Your task to perform on an android device: install app "Yahoo Mail" Image 0: 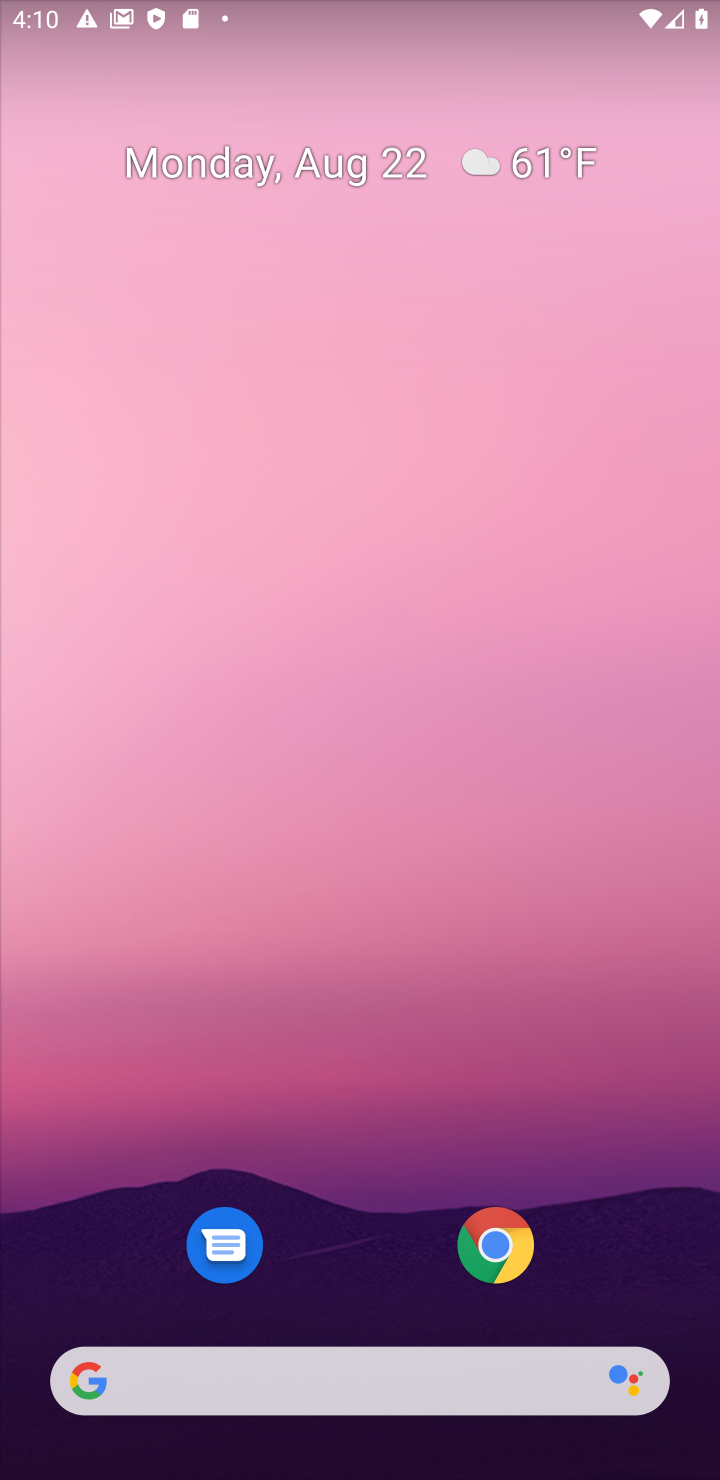
Step 0: press home button
Your task to perform on an android device: install app "Yahoo Mail" Image 1: 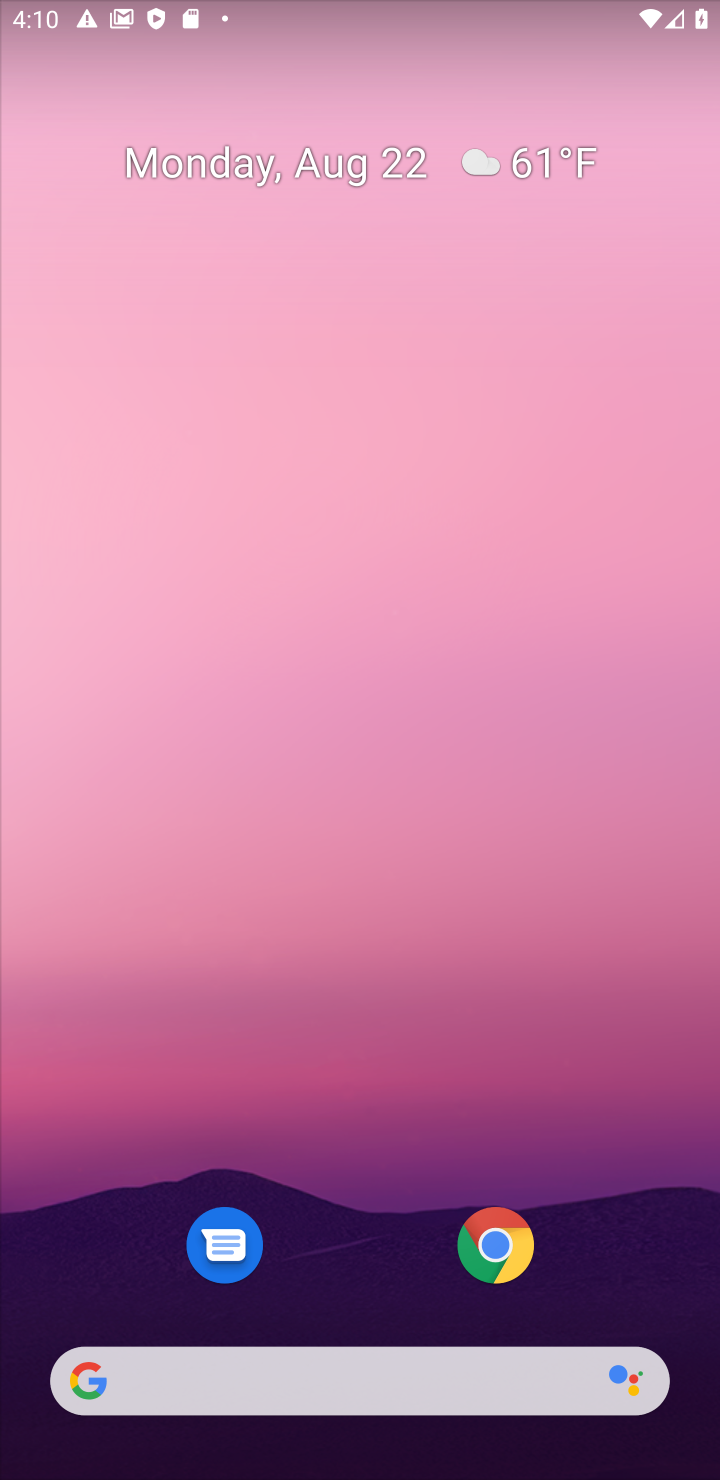
Step 1: drag from (612, 995) to (609, 151)
Your task to perform on an android device: install app "Yahoo Mail" Image 2: 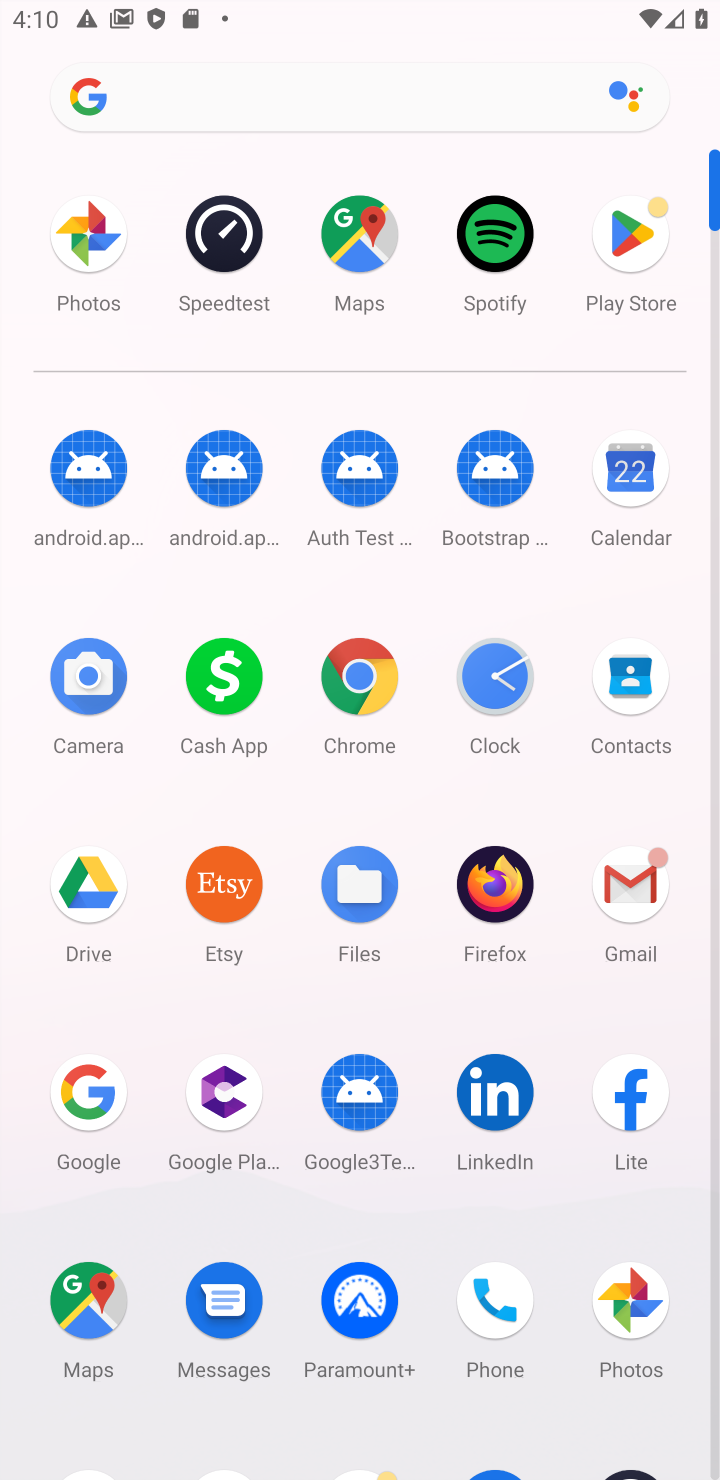
Step 2: click (633, 234)
Your task to perform on an android device: install app "Yahoo Mail" Image 3: 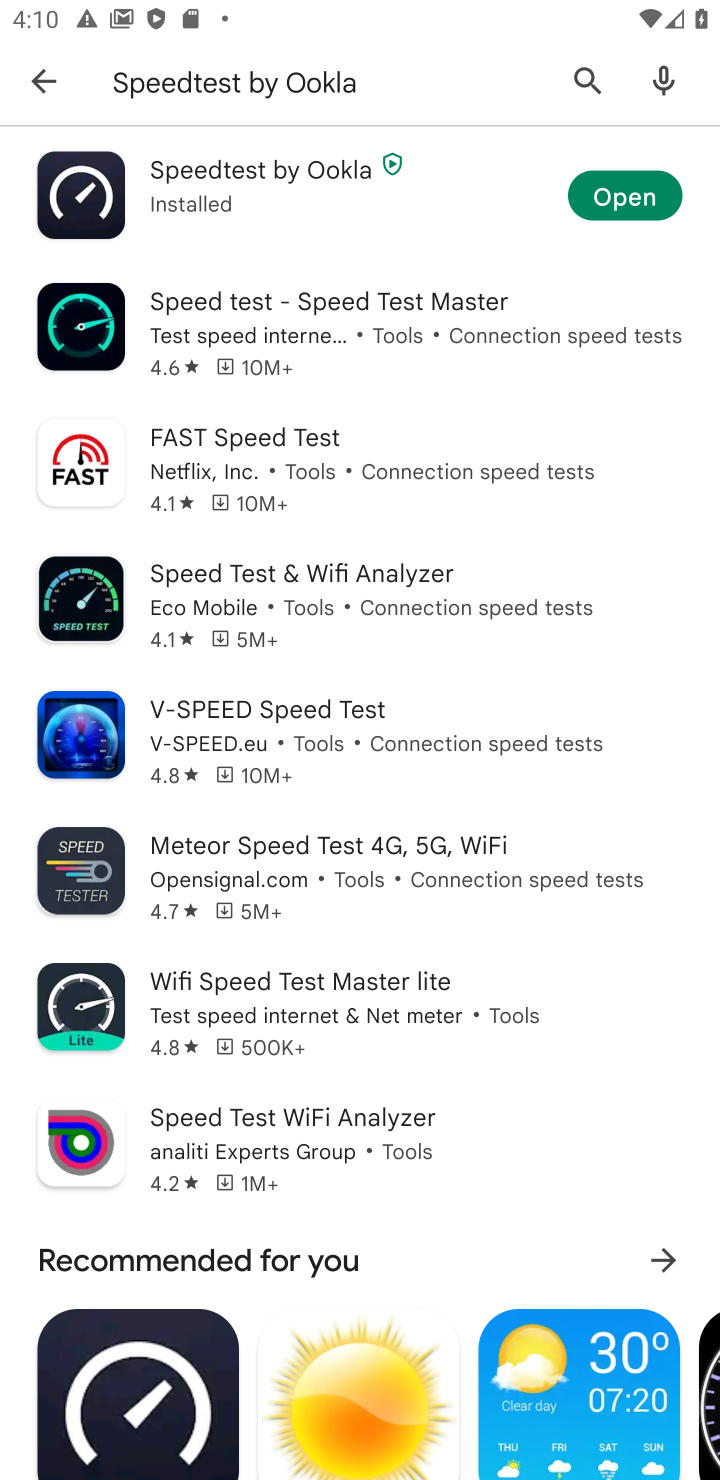
Step 3: press back button
Your task to perform on an android device: install app "Yahoo Mail" Image 4: 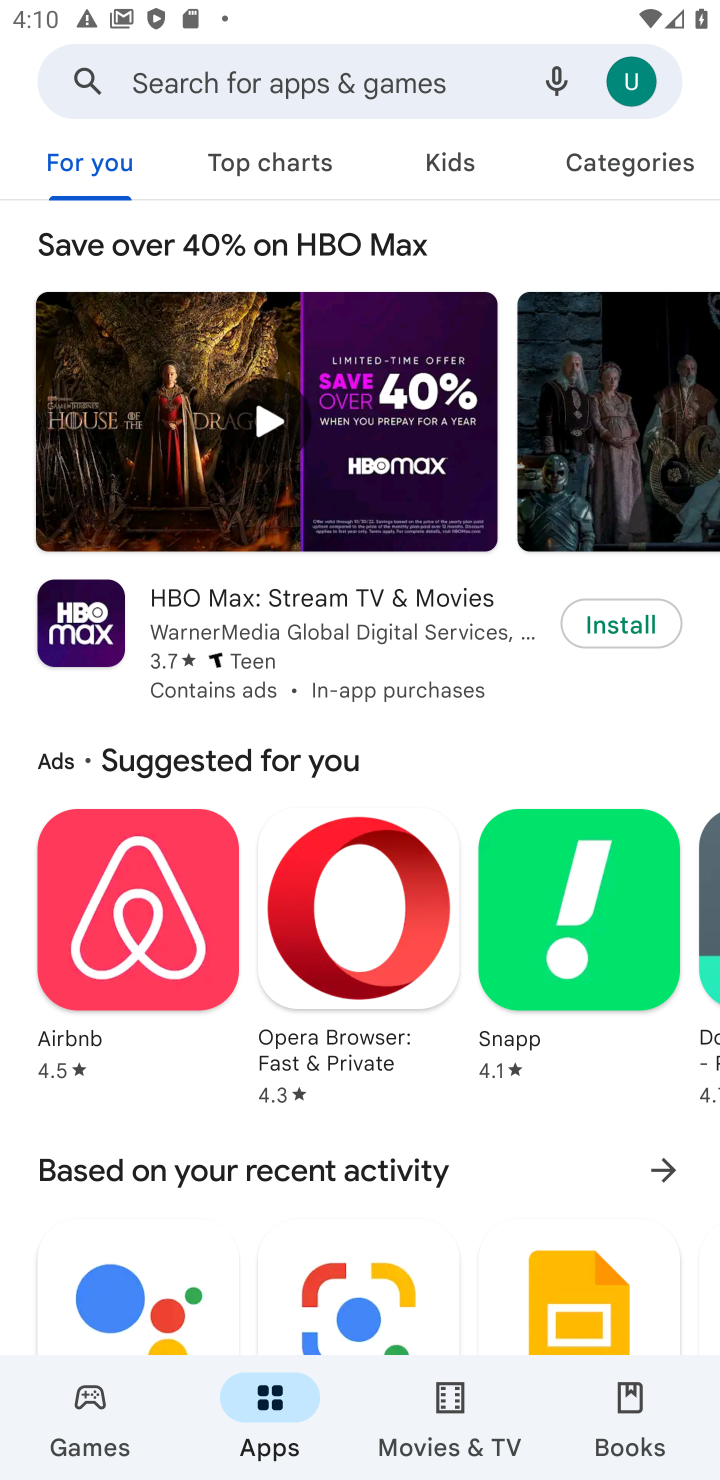
Step 4: click (395, 68)
Your task to perform on an android device: install app "Yahoo Mail" Image 5: 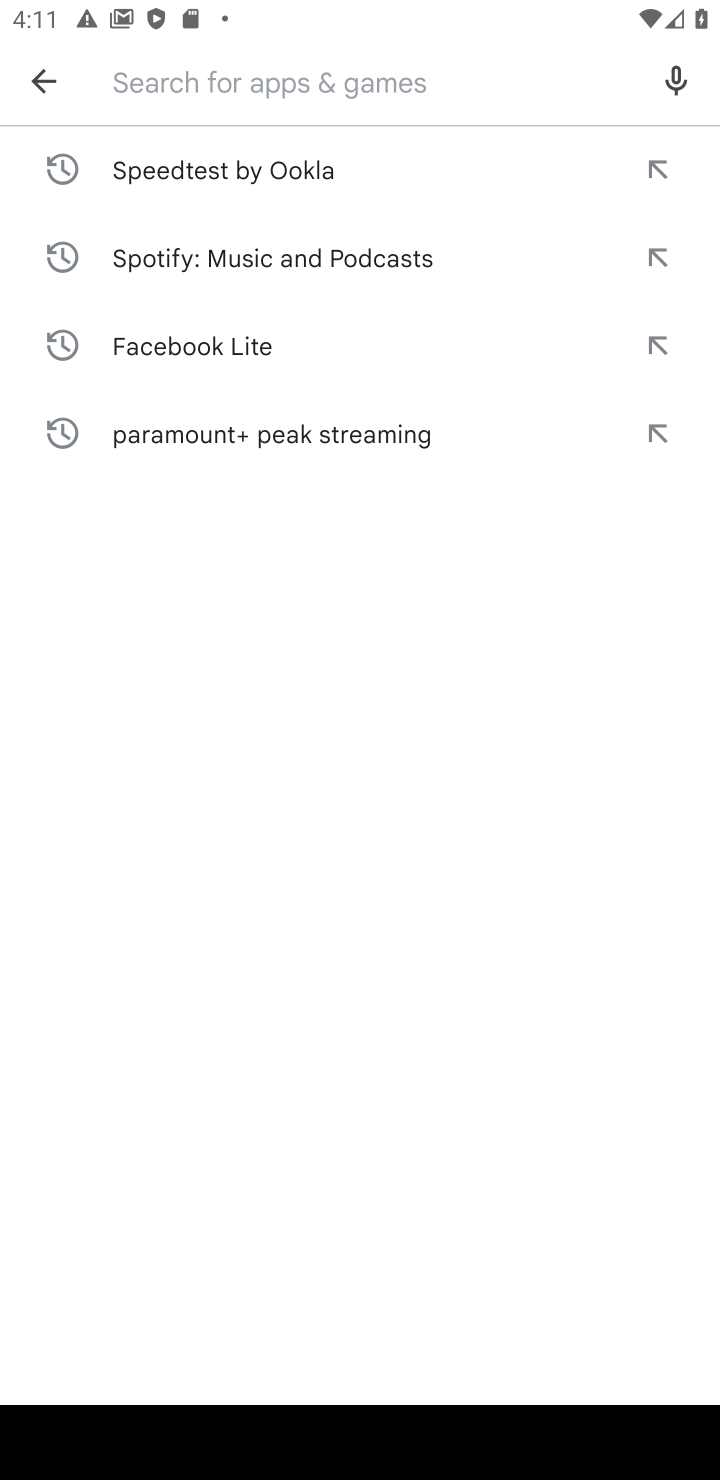
Step 5: press enter
Your task to perform on an android device: install app "Yahoo Mail" Image 6: 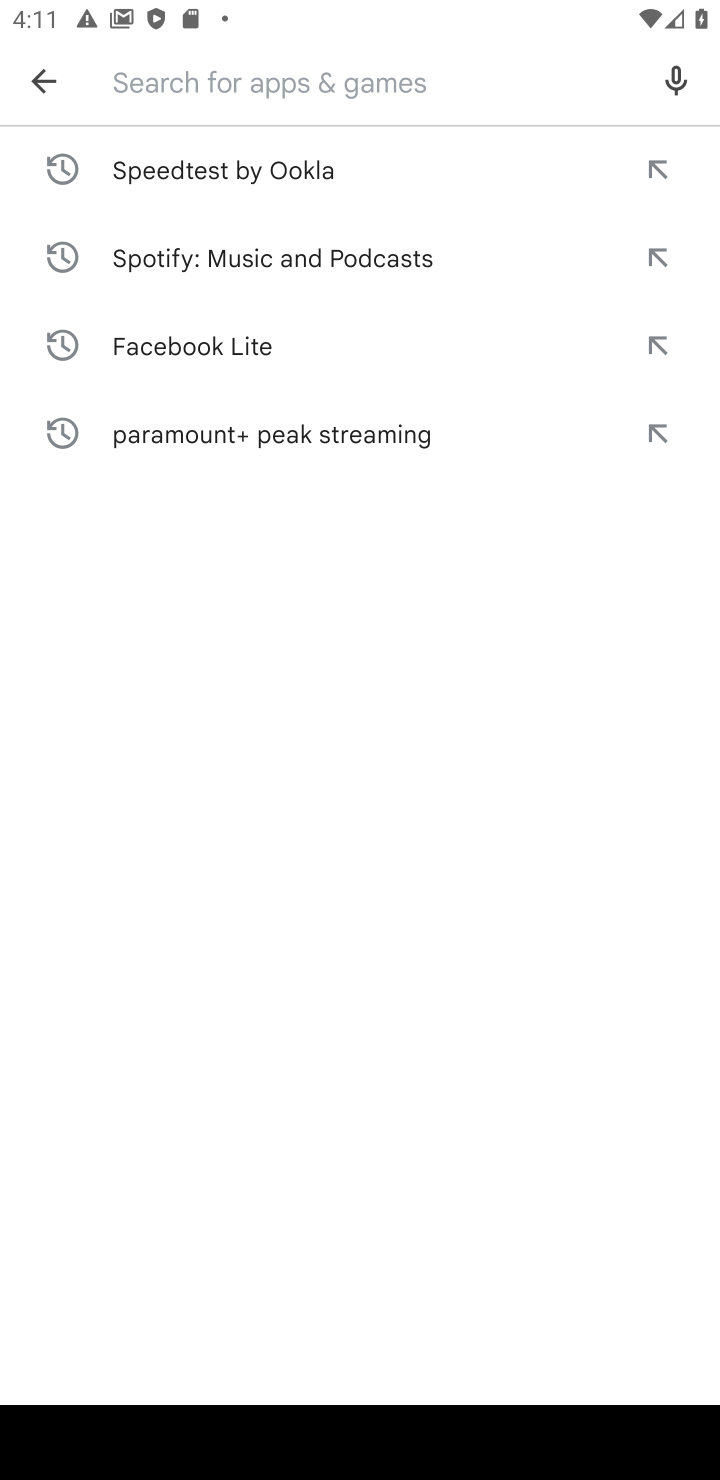
Step 6: type "yahoo mail"
Your task to perform on an android device: install app "Yahoo Mail" Image 7: 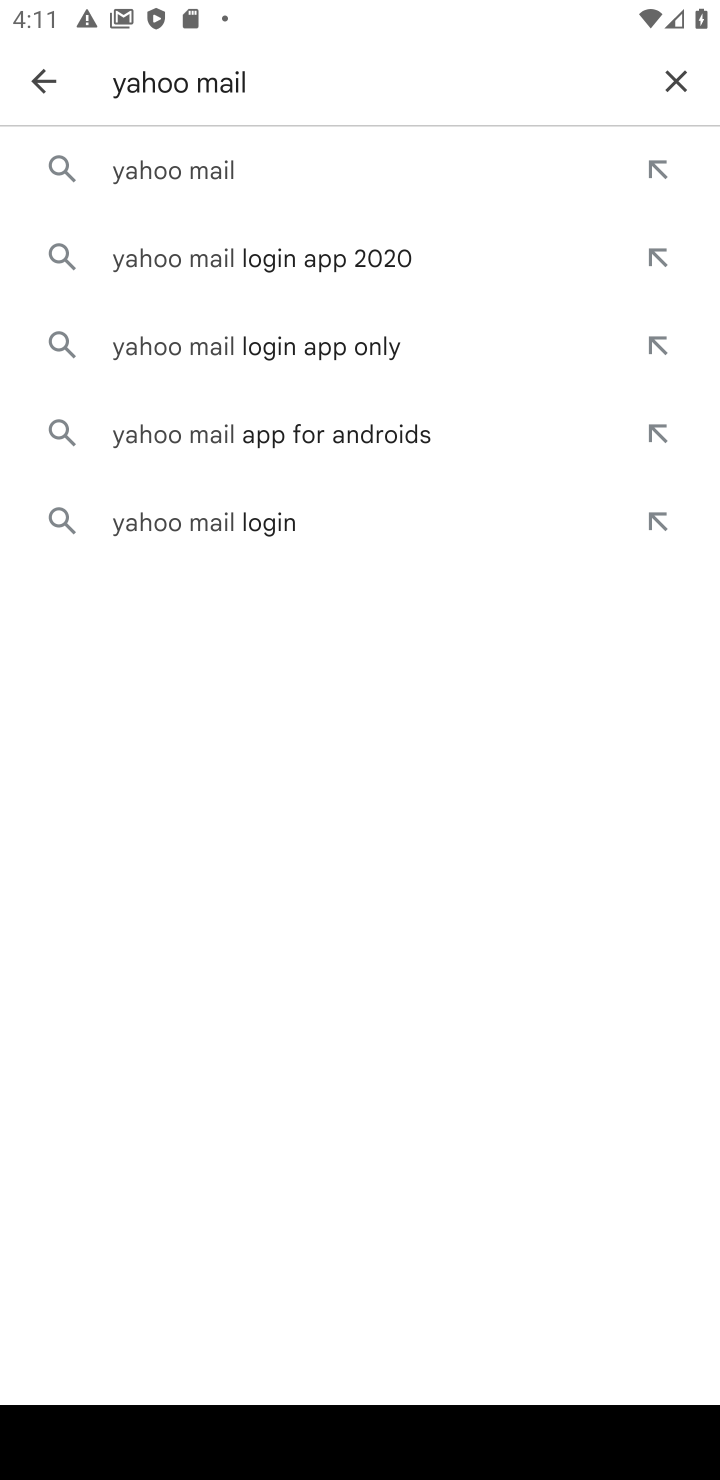
Step 7: click (214, 152)
Your task to perform on an android device: install app "Yahoo Mail" Image 8: 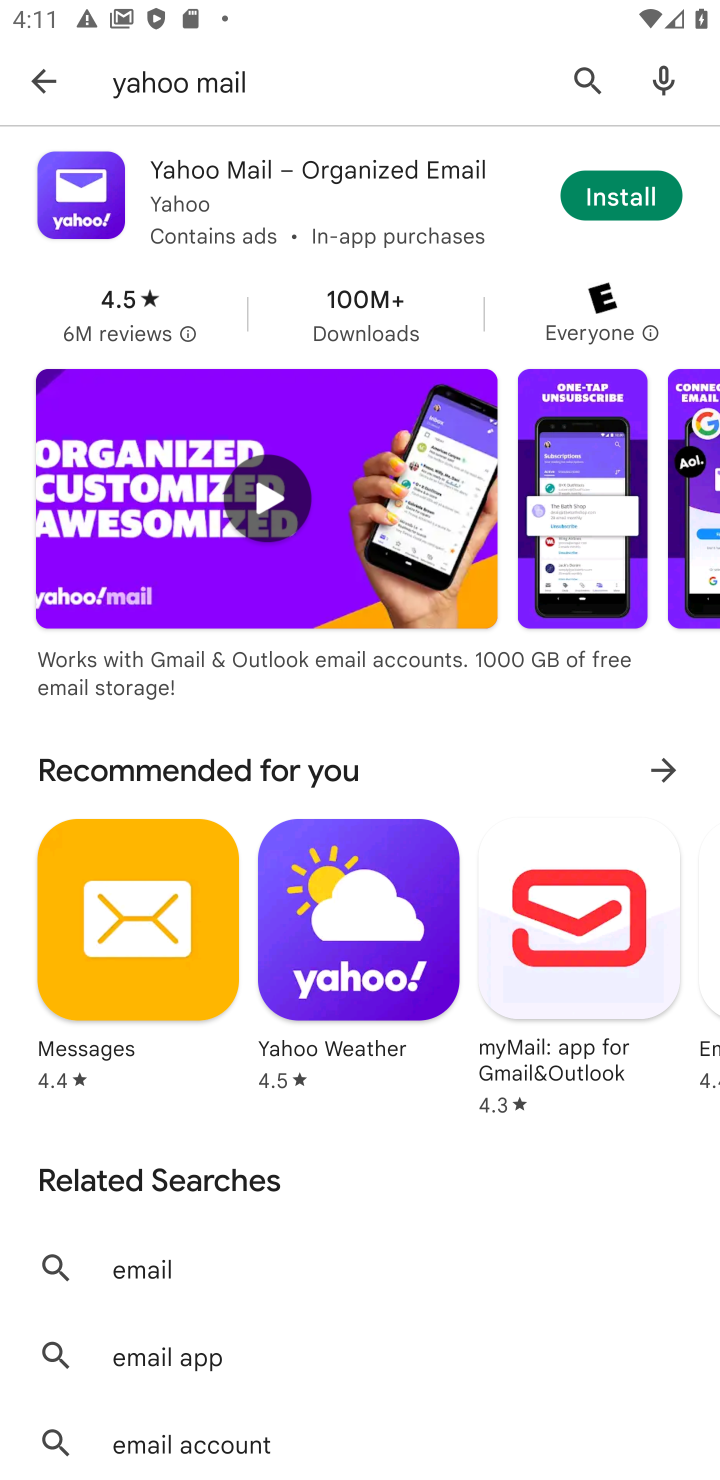
Step 8: click (632, 193)
Your task to perform on an android device: install app "Yahoo Mail" Image 9: 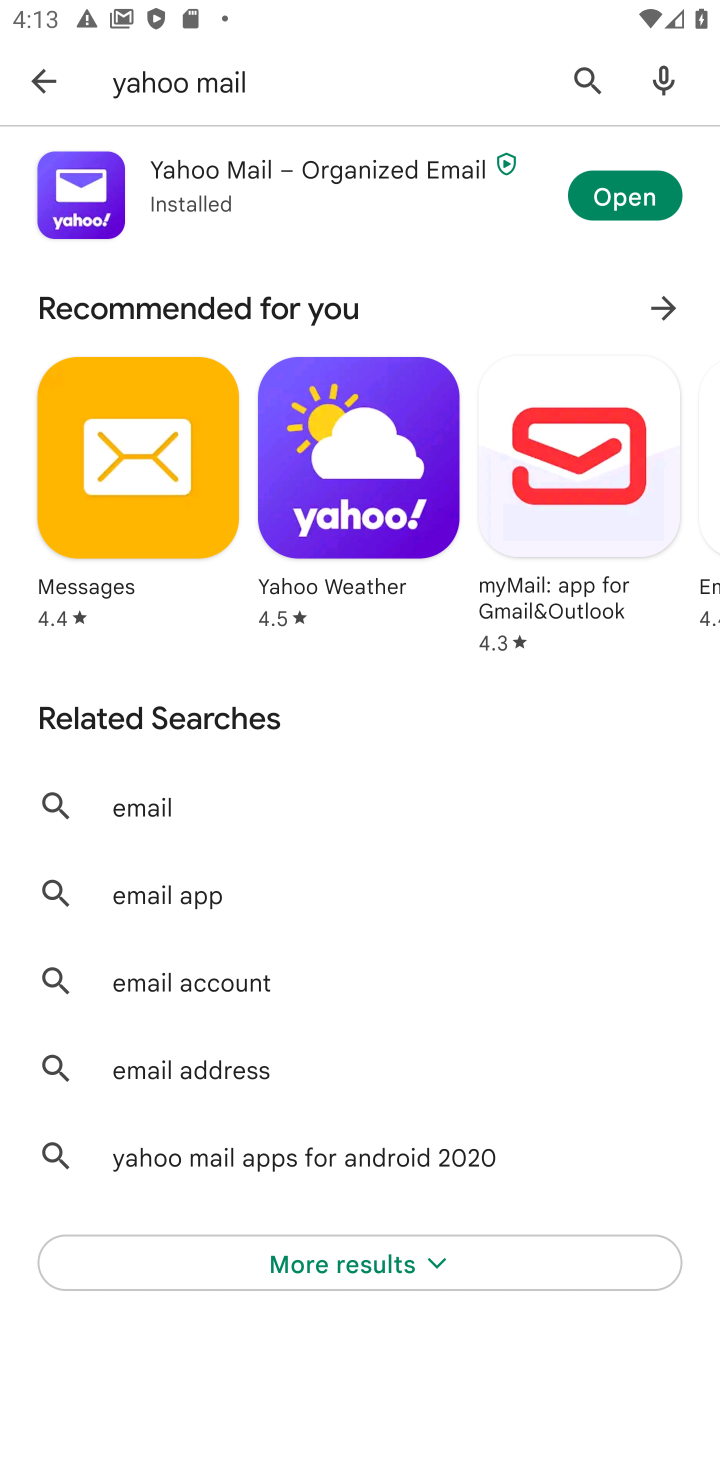
Step 9: task complete